Your task to perform on an android device: Open eBay Image 0: 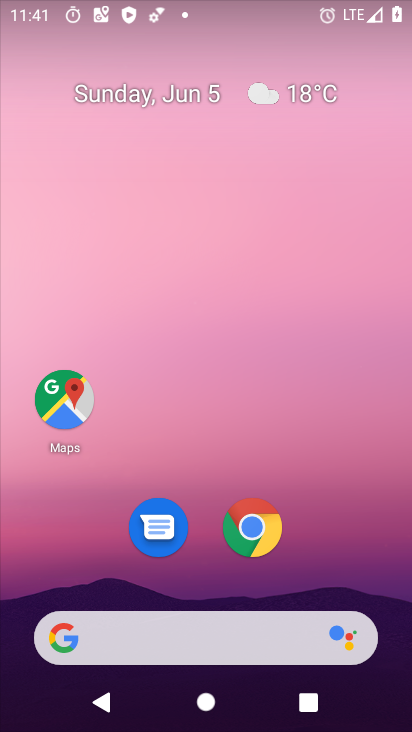
Step 0: click (266, 523)
Your task to perform on an android device: Open eBay Image 1: 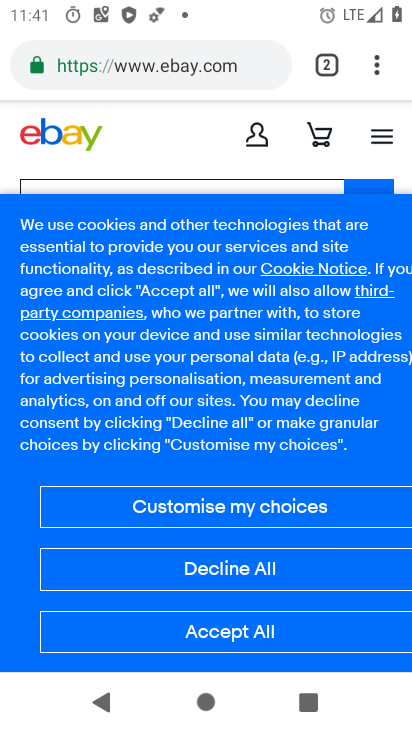
Step 1: task complete